Your task to perform on an android device: Open accessibility settings Image 0: 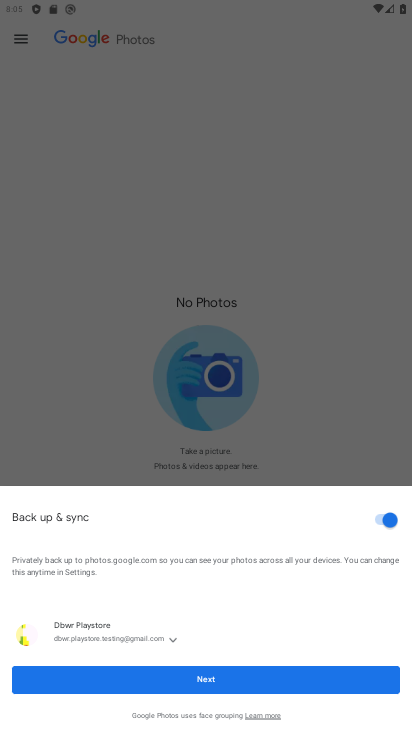
Step 0: press home button
Your task to perform on an android device: Open accessibility settings Image 1: 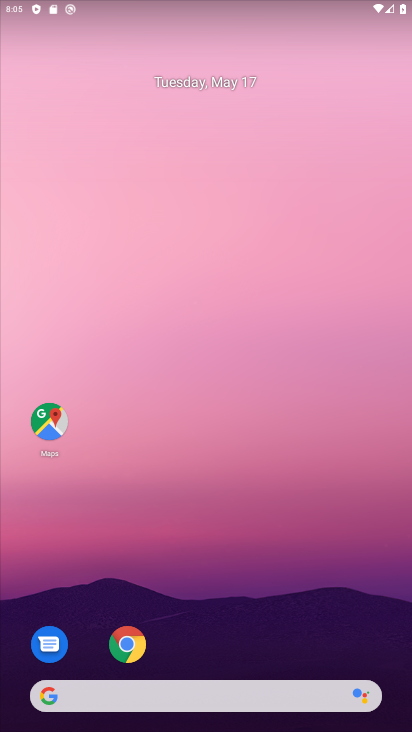
Step 1: drag from (220, 614) to (243, 75)
Your task to perform on an android device: Open accessibility settings Image 2: 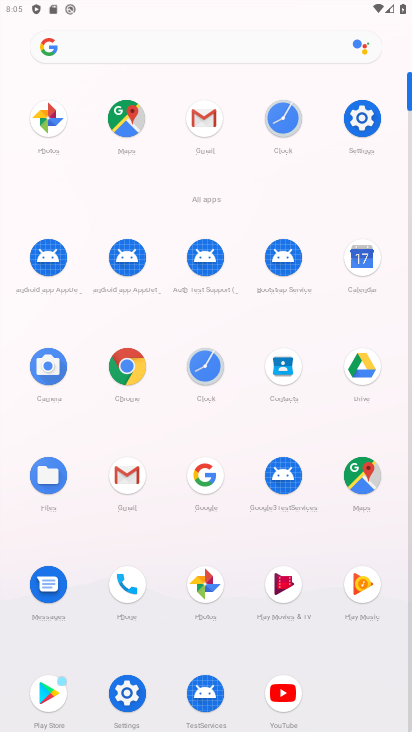
Step 2: click (362, 129)
Your task to perform on an android device: Open accessibility settings Image 3: 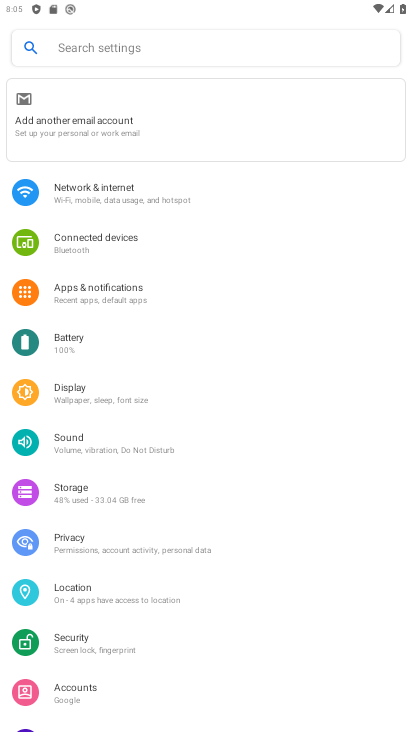
Step 3: drag from (124, 683) to (150, 413)
Your task to perform on an android device: Open accessibility settings Image 4: 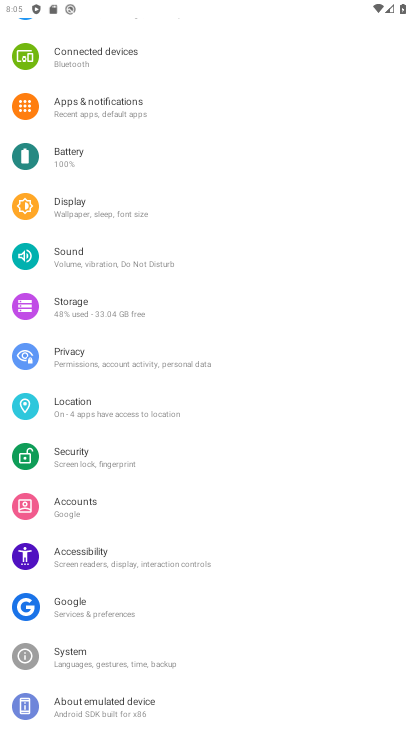
Step 4: click (87, 553)
Your task to perform on an android device: Open accessibility settings Image 5: 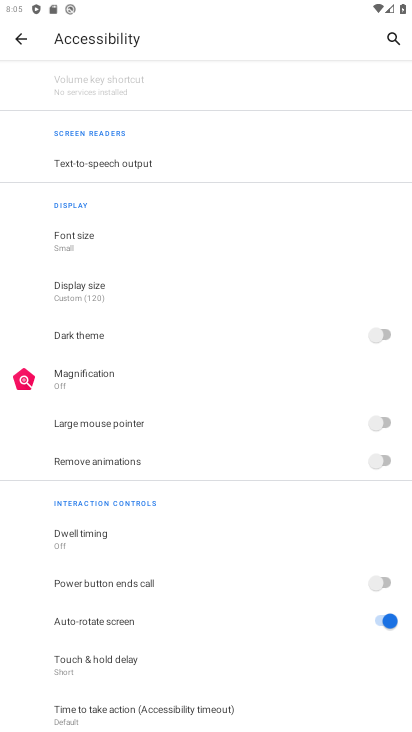
Step 5: task complete